Your task to perform on an android device: Go to accessibility settings Image 0: 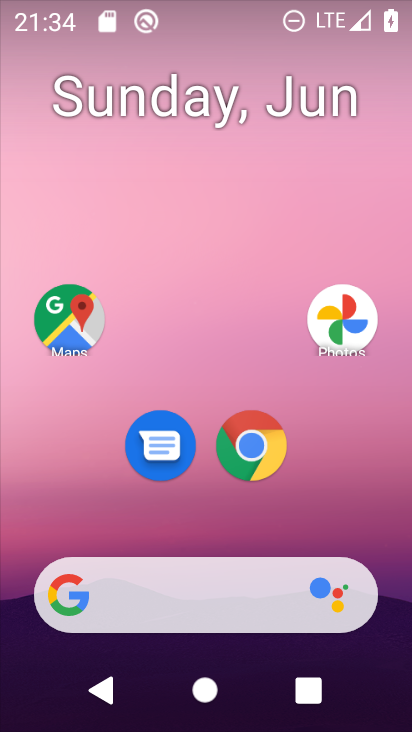
Step 0: press home button
Your task to perform on an android device: Go to accessibility settings Image 1: 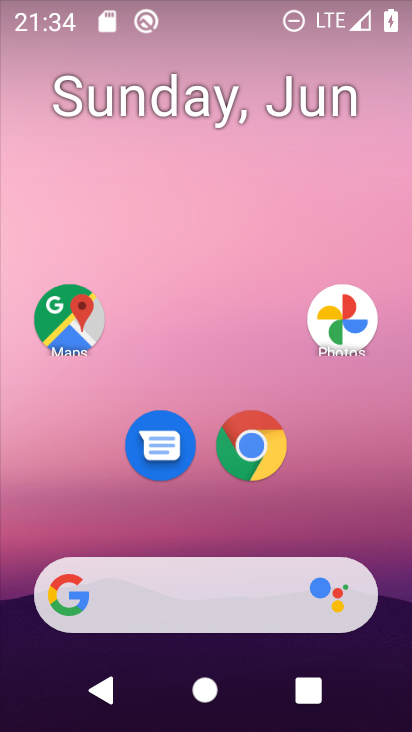
Step 1: drag from (305, 521) to (254, 71)
Your task to perform on an android device: Go to accessibility settings Image 2: 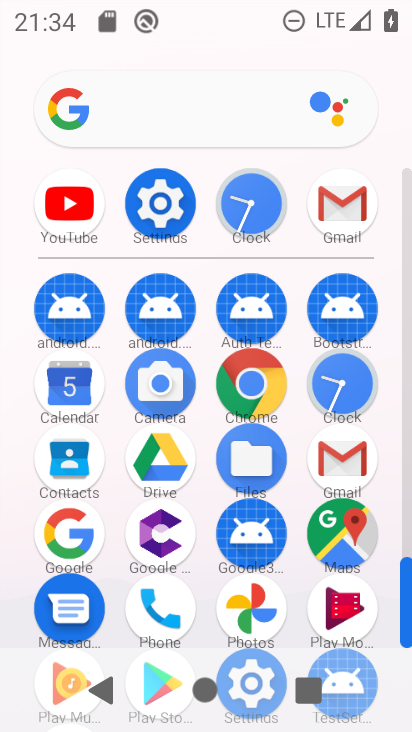
Step 2: click (142, 197)
Your task to perform on an android device: Go to accessibility settings Image 3: 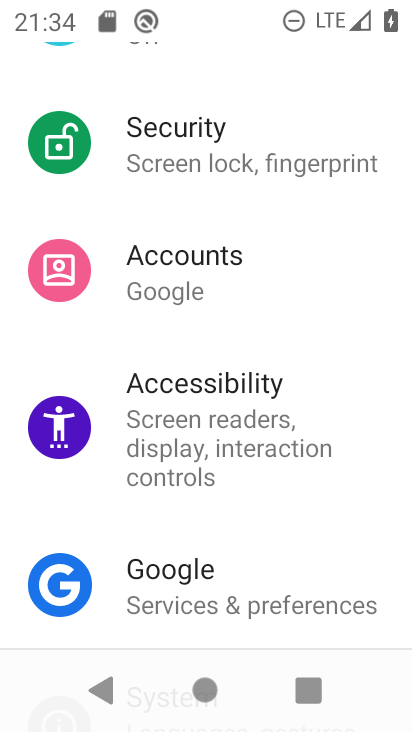
Step 3: click (178, 396)
Your task to perform on an android device: Go to accessibility settings Image 4: 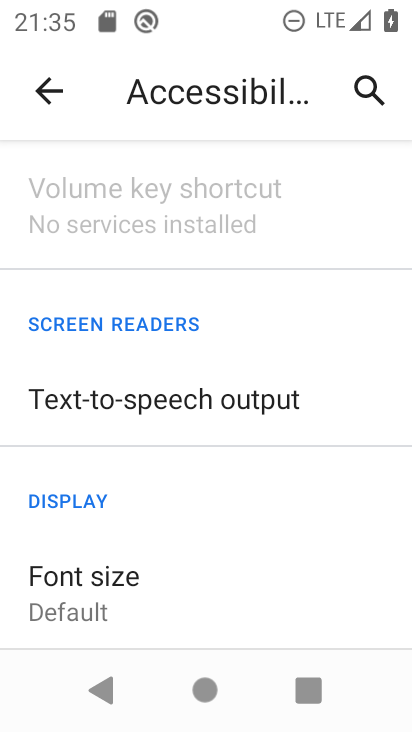
Step 4: task complete